Your task to perform on an android device: turn smart compose on in the gmail app Image 0: 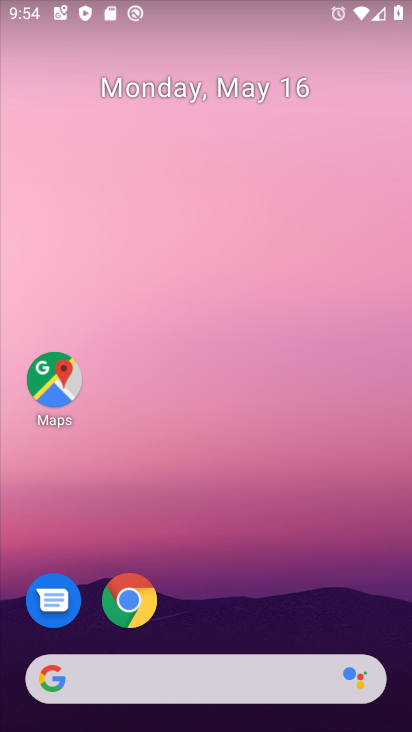
Step 0: click (283, 163)
Your task to perform on an android device: turn smart compose on in the gmail app Image 1: 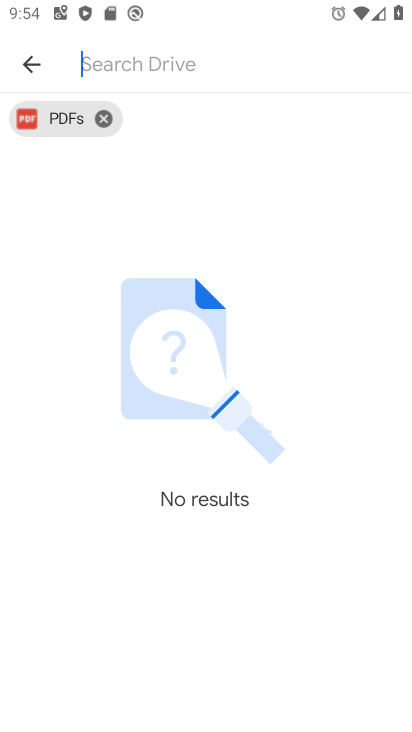
Step 1: drag from (242, 570) to (313, 273)
Your task to perform on an android device: turn smart compose on in the gmail app Image 2: 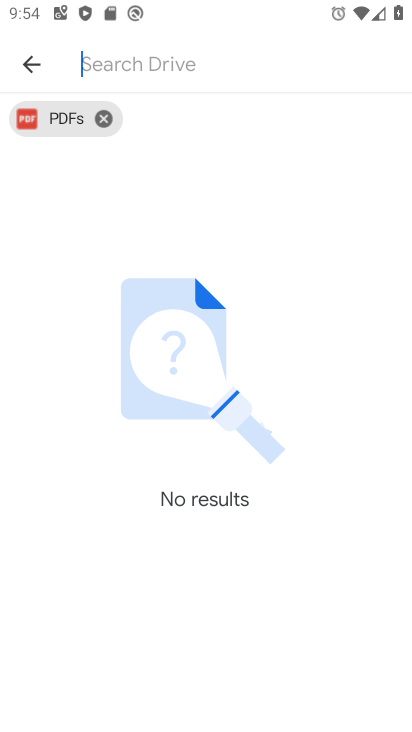
Step 2: click (20, 69)
Your task to perform on an android device: turn smart compose on in the gmail app Image 3: 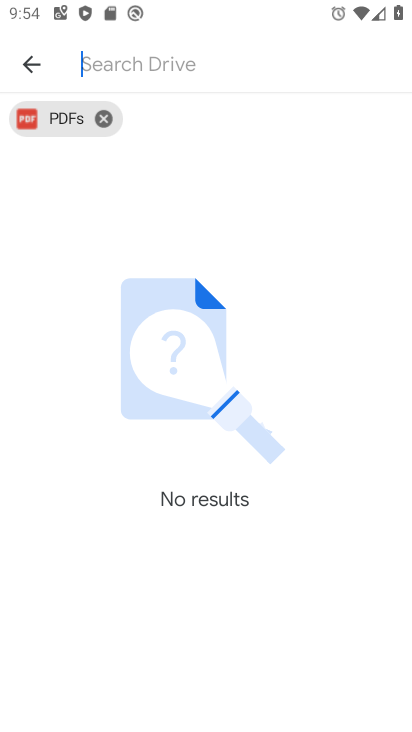
Step 3: click (246, 404)
Your task to perform on an android device: turn smart compose on in the gmail app Image 4: 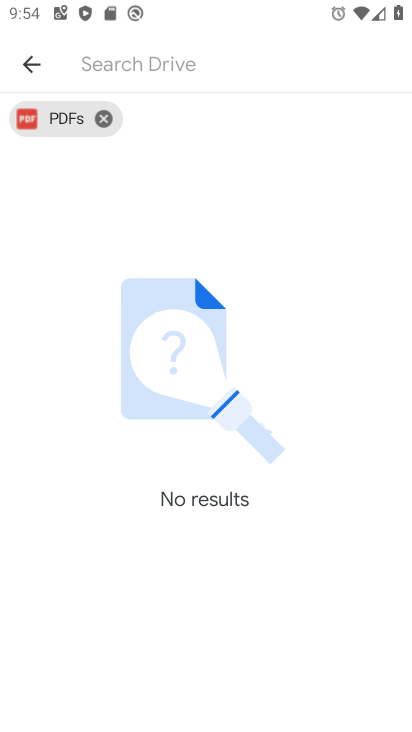
Step 4: press back button
Your task to perform on an android device: turn smart compose on in the gmail app Image 5: 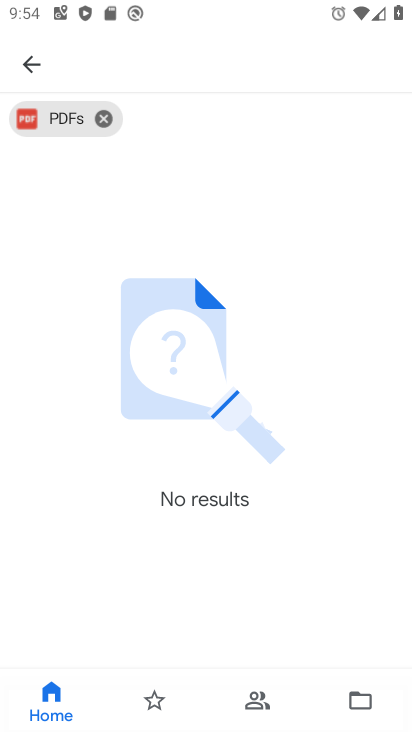
Step 5: press back button
Your task to perform on an android device: turn smart compose on in the gmail app Image 6: 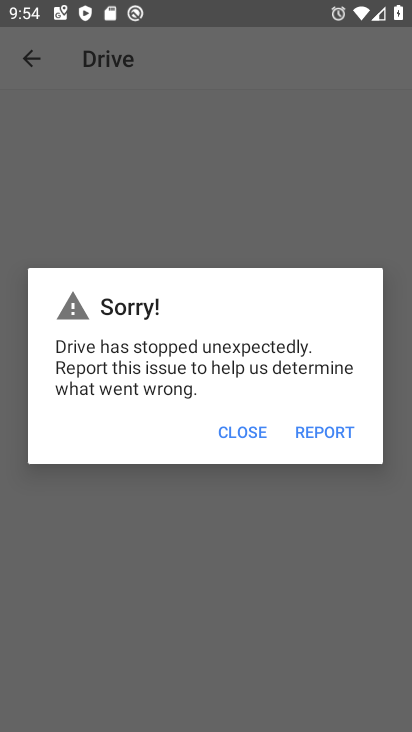
Step 6: drag from (278, 528) to (368, 168)
Your task to perform on an android device: turn smart compose on in the gmail app Image 7: 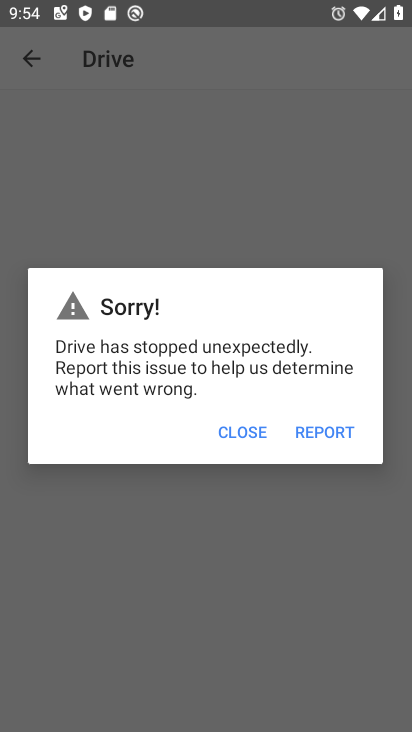
Step 7: press home button
Your task to perform on an android device: turn smart compose on in the gmail app Image 8: 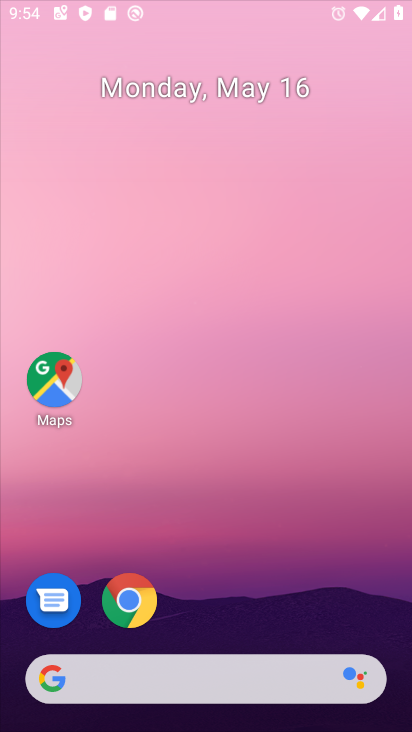
Step 8: drag from (187, 630) to (332, 185)
Your task to perform on an android device: turn smart compose on in the gmail app Image 9: 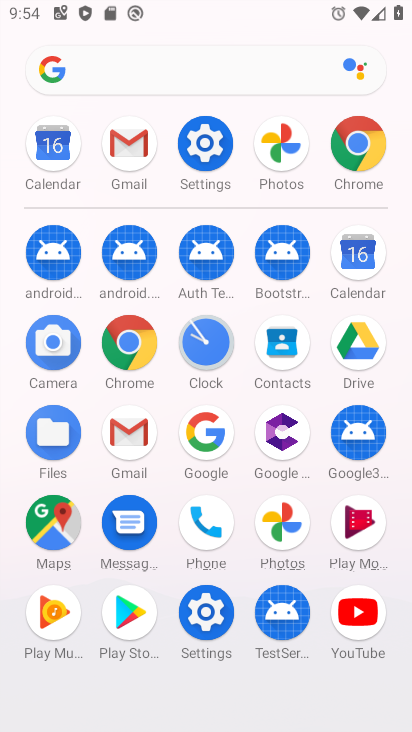
Step 9: click (127, 435)
Your task to perform on an android device: turn smart compose on in the gmail app Image 10: 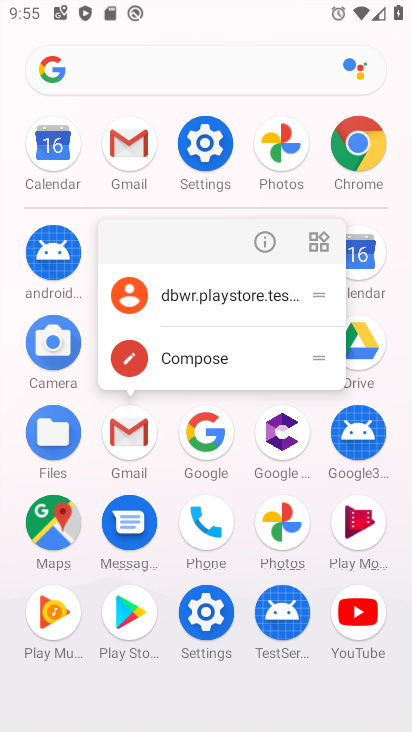
Step 10: click (263, 250)
Your task to perform on an android device: turn smart compose on in the gmail app Image 11: 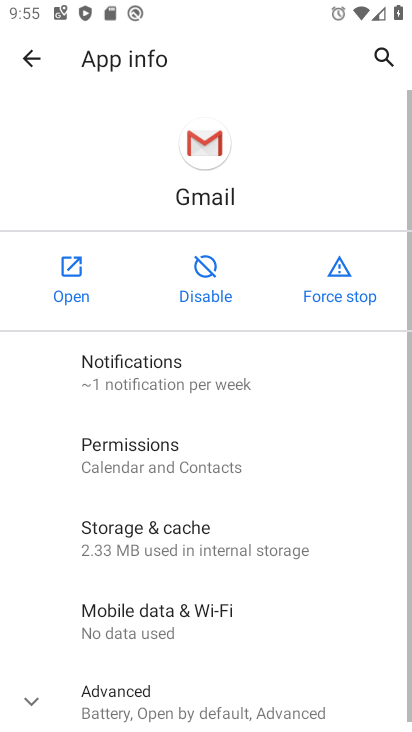
Step 11: click (61, 271)
Your task to perform on an android device: turn smart compose on in the gmail app Image 12: 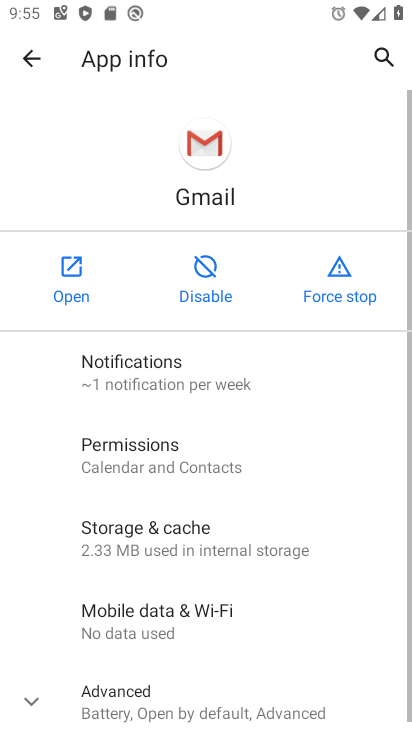
Step 12: click (61, 271)
Your task to perform on an android device: turn smart compose on in the gmail app Image 13: 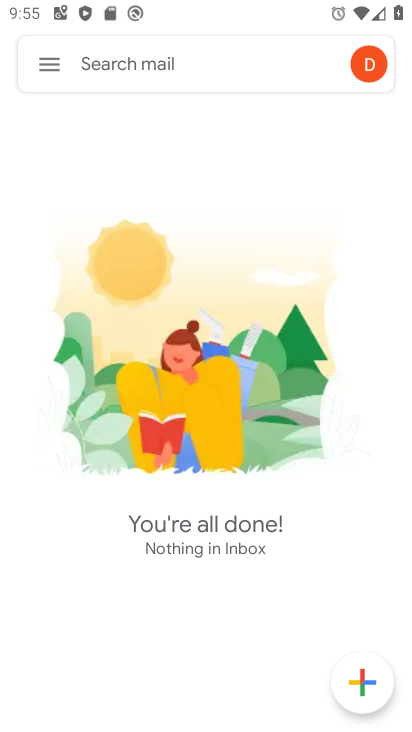
Step 13: click (47, 73)
Your task to perform on an android device: turn smart compose on in the gmail app Image 14: 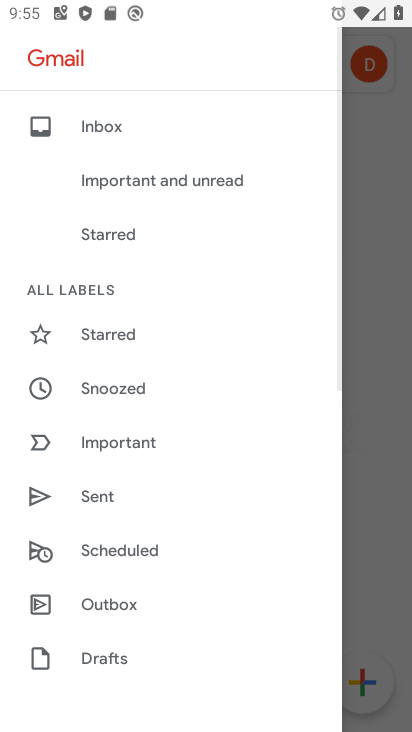
Step 14: drag from (151, 579) to (245, 181)
Your task to perform on an android device: turn smart compose on in the gmail app Image 15: 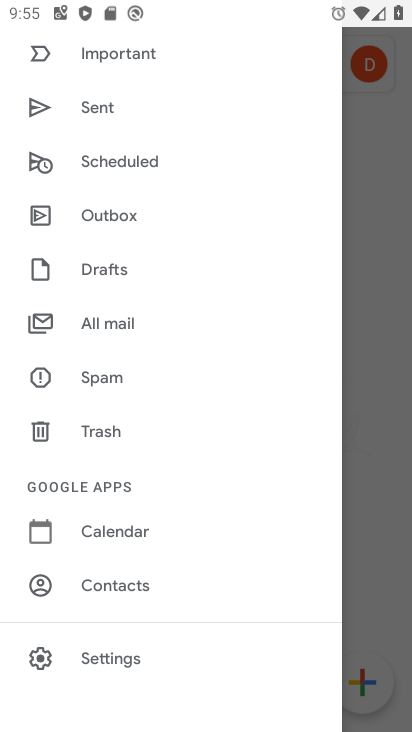
Step 15: click (114, 667)
Your task to perform on an android device: turn smart compose on in the gmail app Image 16: 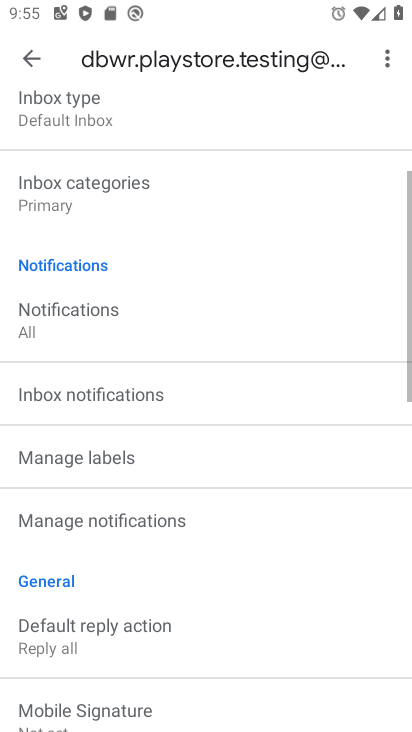
Step 16: task complete